Your task to perform on an android device: open wifi settings Image 0: 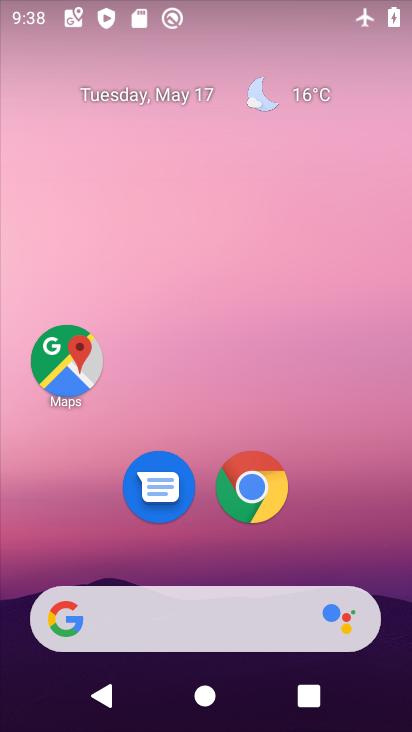
Step 0: drag from (224, 542) to (324, 6)
Your task to perform on an android device: open wifi settings Image 1: 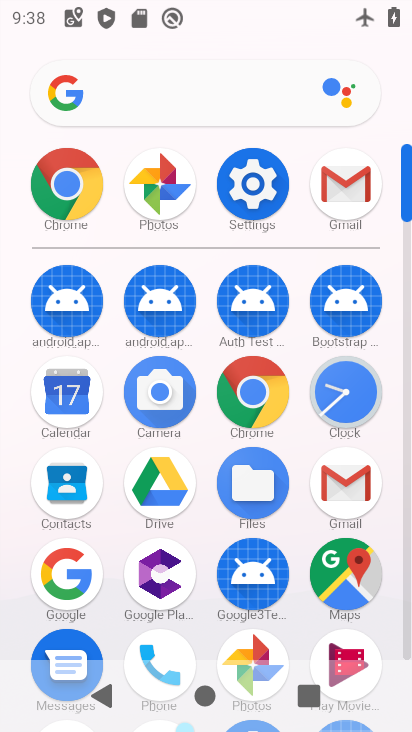
Step 1: click (256, 188)
Your task to perform on an android device: open wifi settings Image 2: 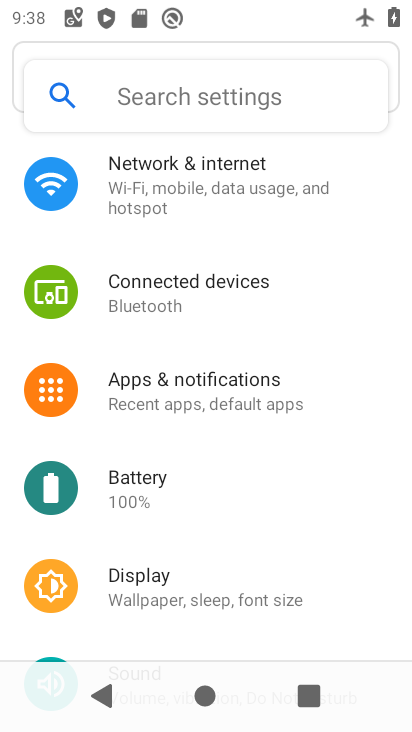
Step 2: click (256, 183)
Your task to perform on an android device: open wifi settings Image 3: 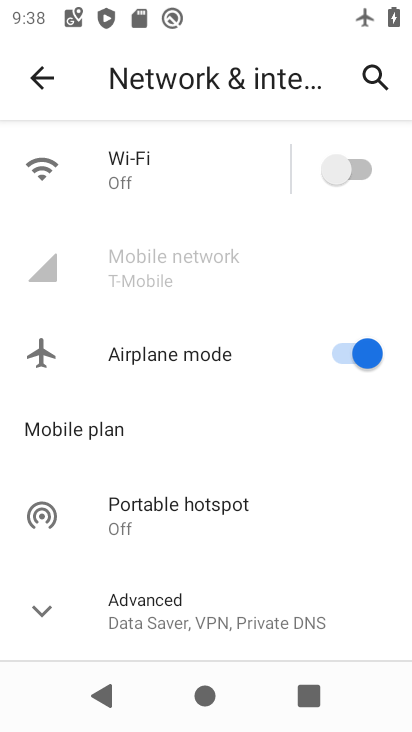
Step 3: click (215, 182)
Your task to perform on an android device: open wifi settings Image 4: 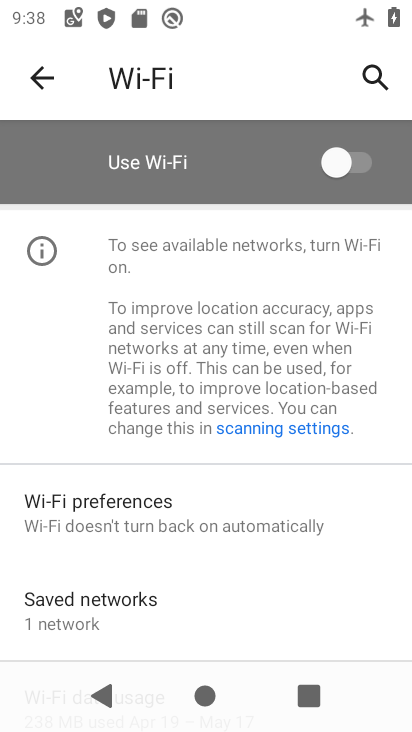
Step 4: task complete